Your task to perform on an android device: Open maps Image 0: 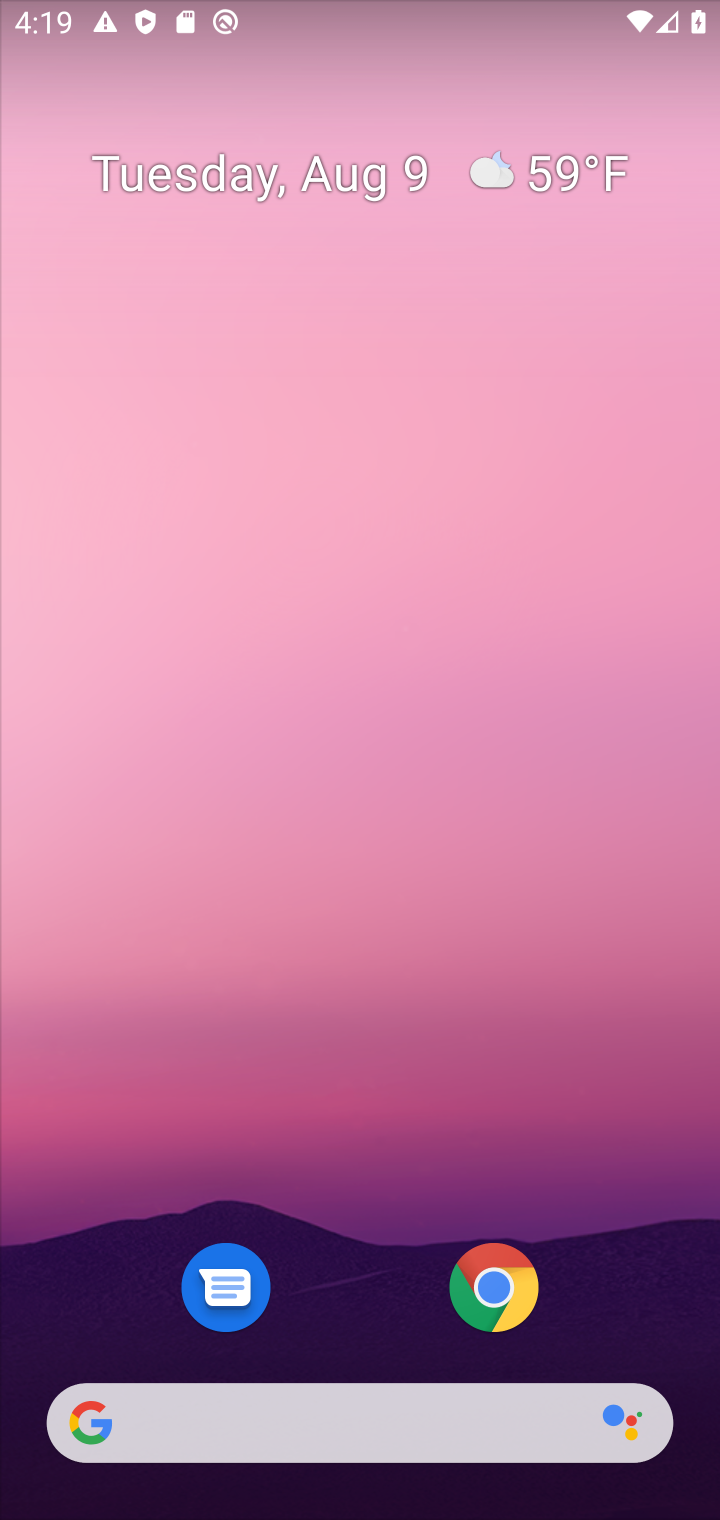
Step 0: drag from (265, 380) to (268, 96)
Your task to perform on an android device: Open maps Image 1: 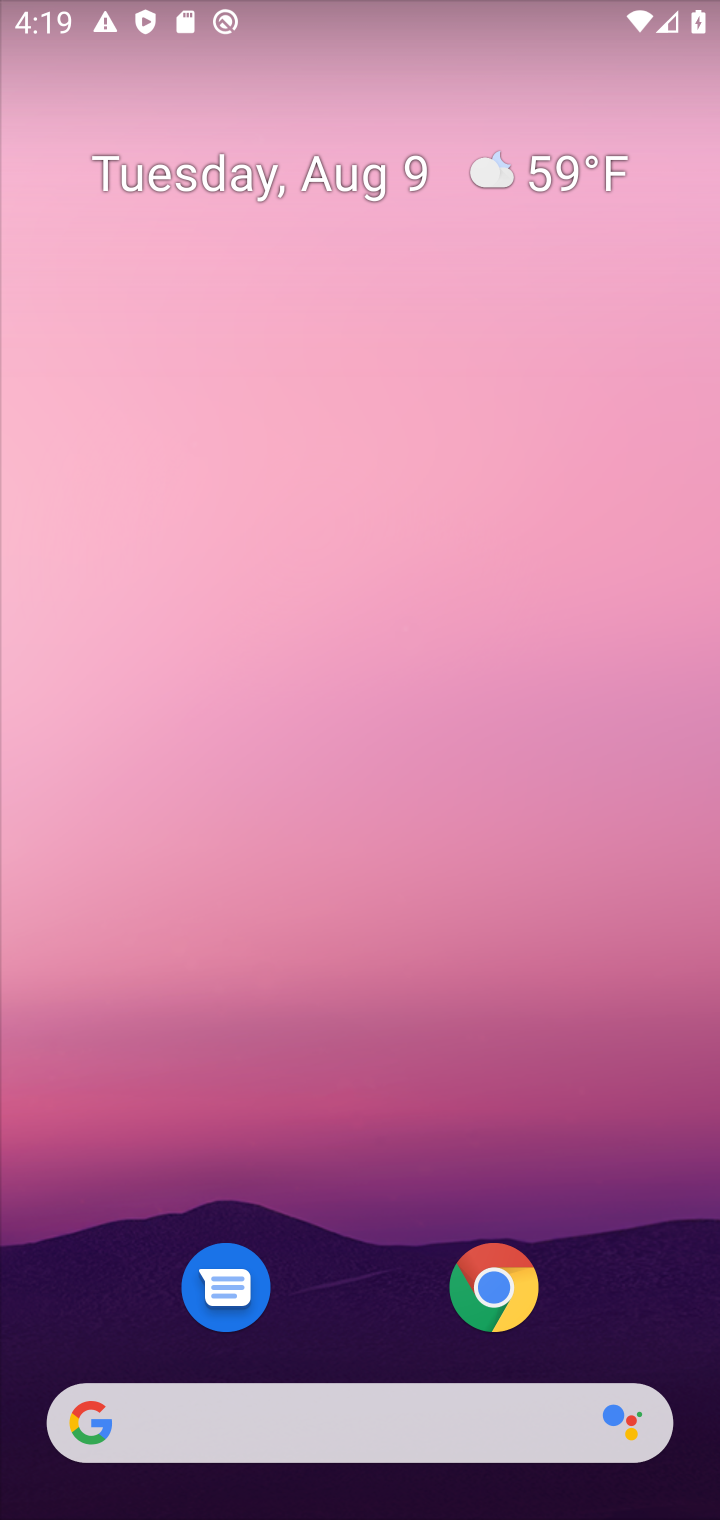
Step 1: drag from (384, 1261) to (364, 139)
Your task to perform on an android device: Open maps Image 2: 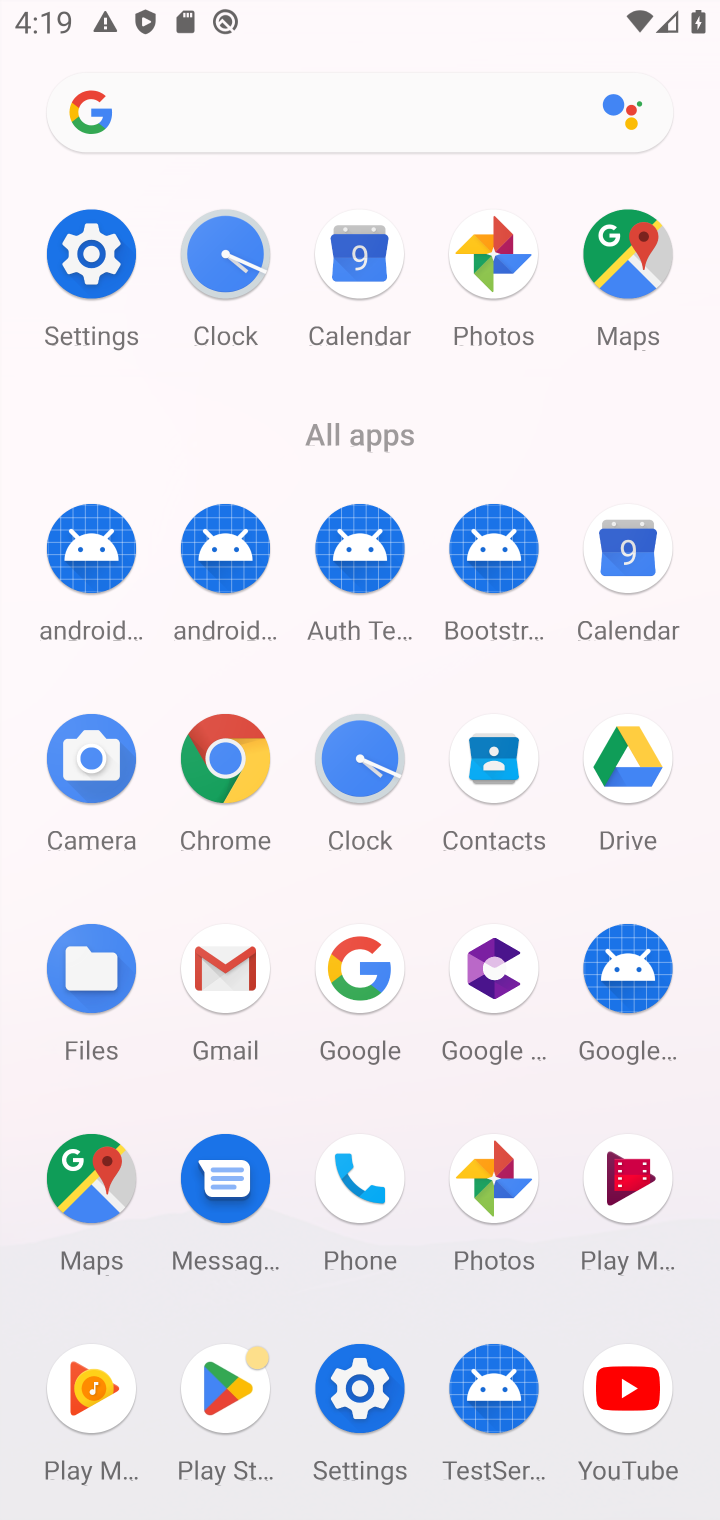
Step 2: click (608, 271)
Your task to perform on an android device: Open maps Image 3: 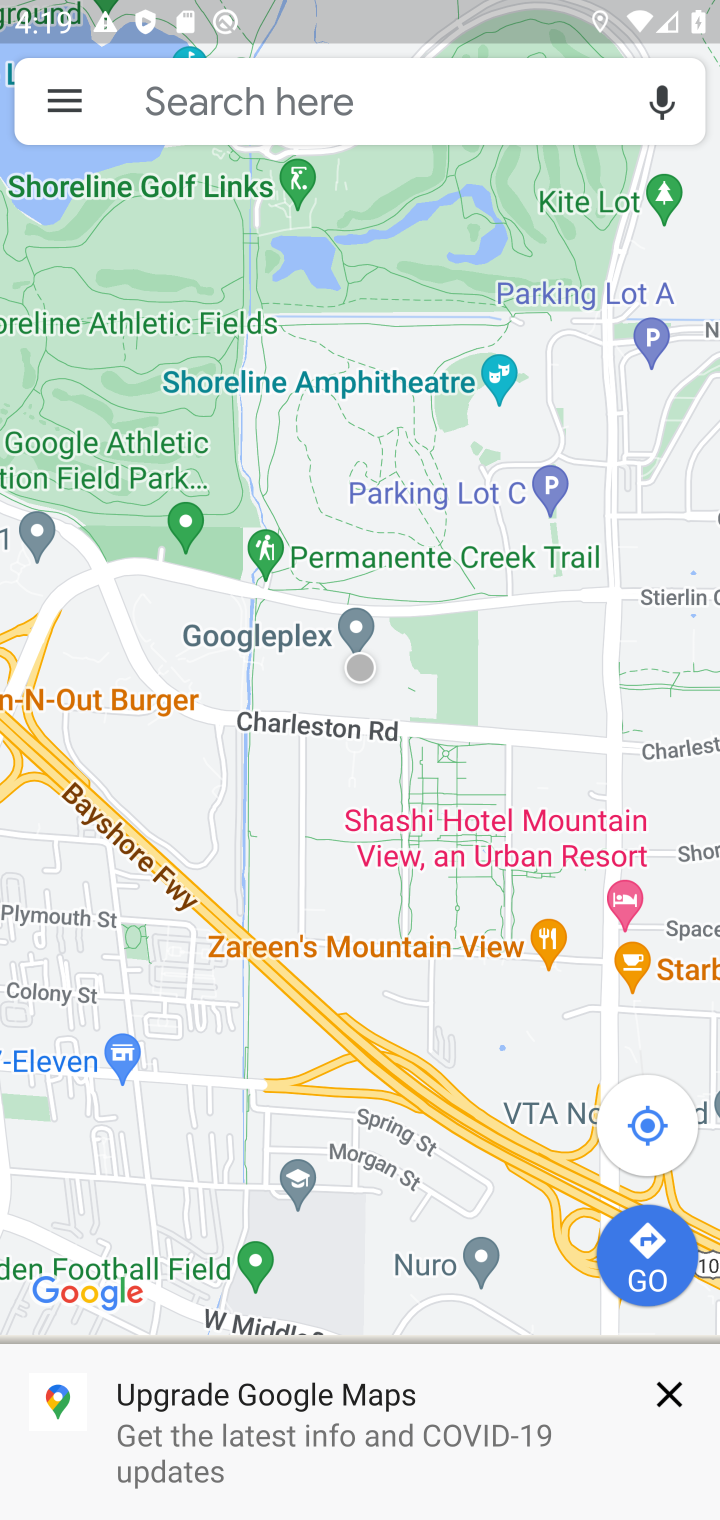
Step 3: task complete